Your task to perform on an android device: move an email to a new category in the gmail app Image 0: 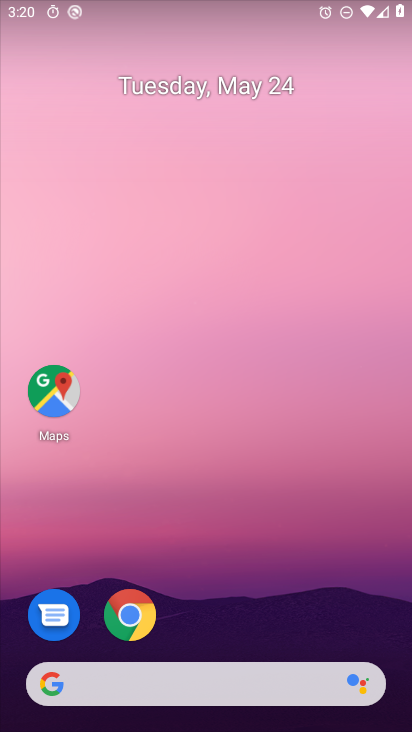
Step 0: drag from (224, 653) to (229, 283)
Your task to perform on an android device: move an email to a new category in the gmail app Image 1: 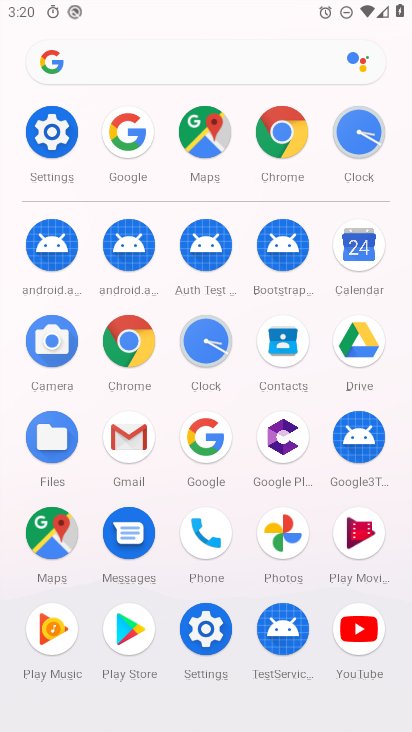
Step 1: click (135, 442)
Your task to perform on an android device: move an email to a new category in the gmail app Image 2: 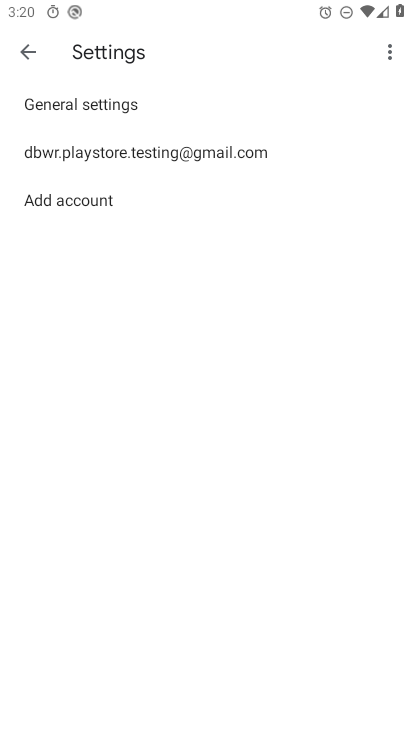
Step 2: click (34, 41)
Your task to perform on an android device: move an email to a new category in the gmail app Image 3: 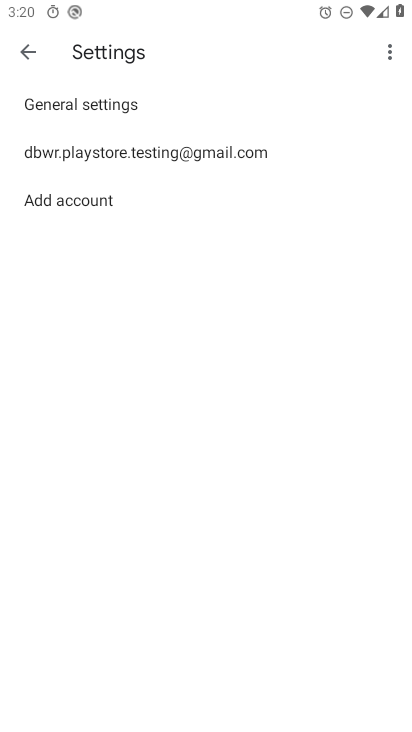
Step 3: click (28, 54)
Your task to perform on an android device: move an email to a new category in the gmail app Image 4: 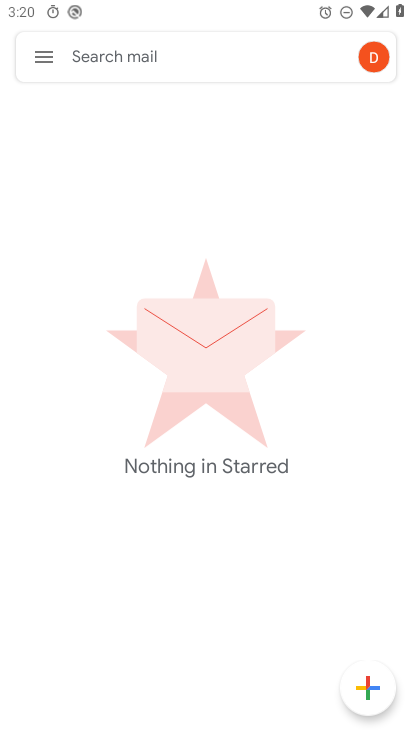
Step 4: click (44, 63)
Your task to perform on an android device: move an email to a new category in the gmail app Image 5: 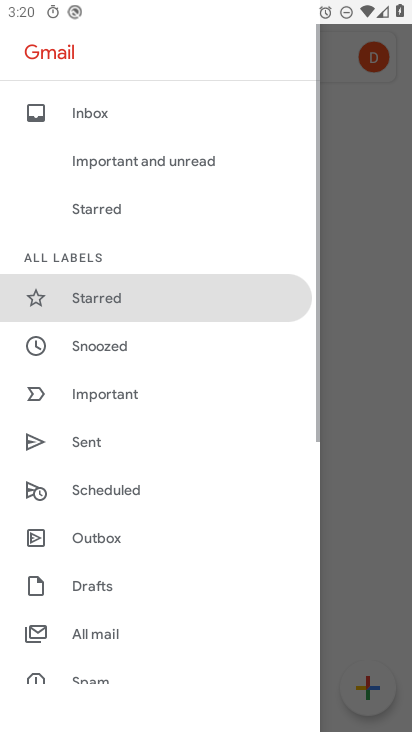
Step 5: click (94, 120)
Your task to perform on an android device: move an email to a new category in the gmail app Image 6: 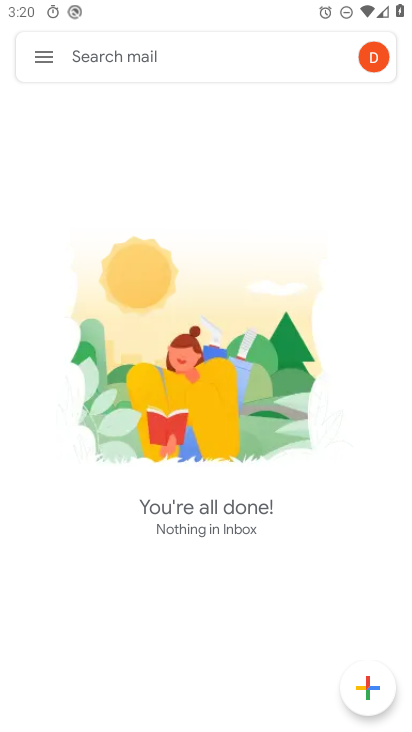
Step 6: task complete